Your task to perform on an android device: turn on priority inbox in the gmail app Image 0: 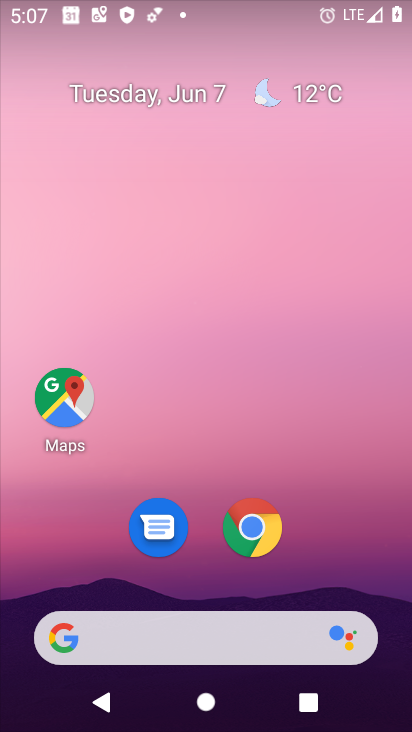
Step 0: drag from (342, 466) to (254, 69)
Your task to perform on an android device: turn on priority inbox in the gmail app Image 1: 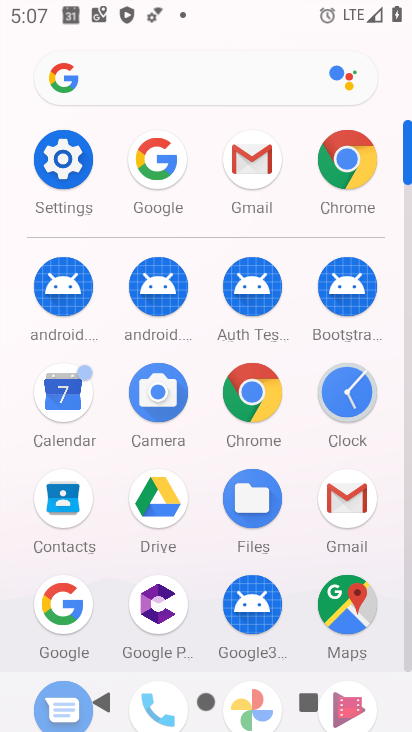
Step 1: click (251, 156)
Your task to perform on an android device: turn on priority inbox in the gmail app Image 2: 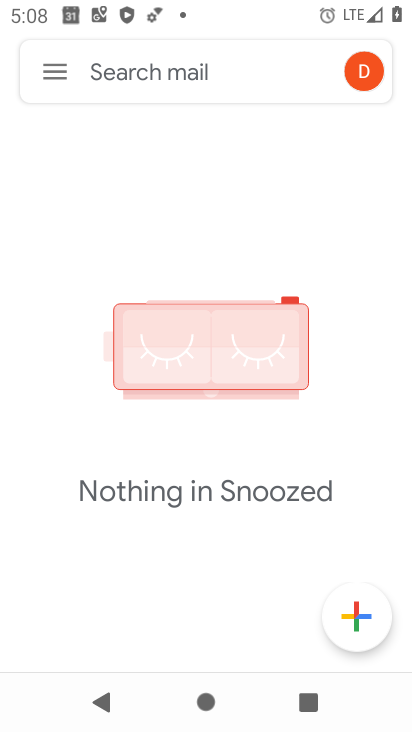
Step 2: click (60, 72)
Your task to perform on an android device: turn on priority inbox in the gmail app Image 3: 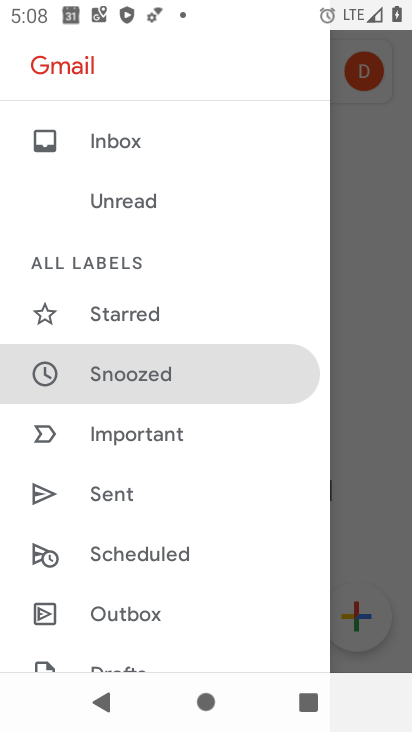
Step 3: drag from (157, 497) to (164, 368)
Your task to perform on an android device: turn on priority inbox in the gmail app Image 4: 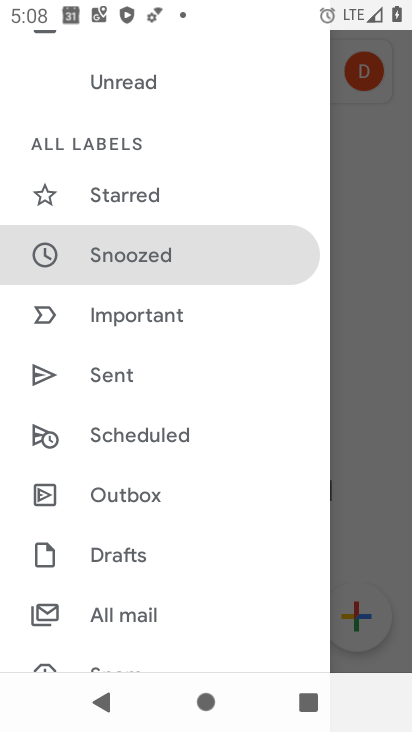
Step 4: drag from (133, 523) to (172, 402)
Your task to perform on an android device: turn on priority inbox in the gmail app Image 5: 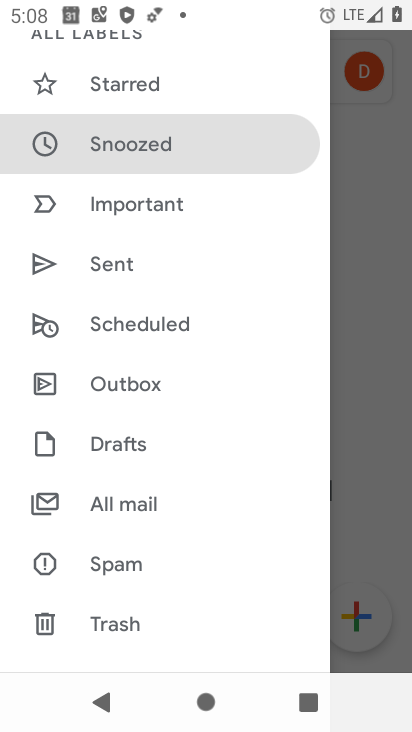
Step 5: drag from (104, 587) to (147, 463)
Your task to perform on an android device: turn on priority inbox in the gmail app Image 6: 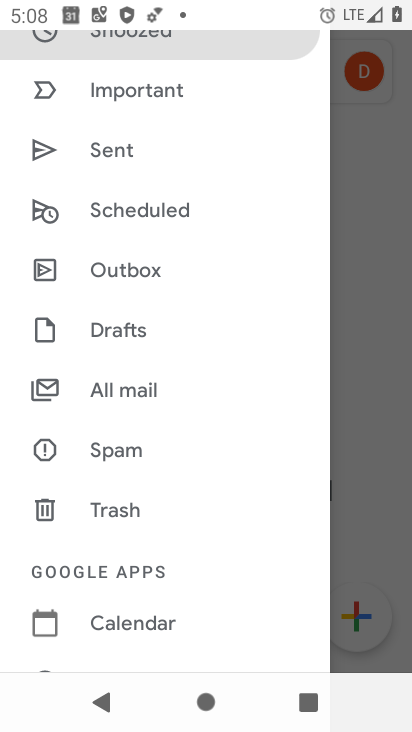
Step 6: drag from (104, 596) to (121, 448)
Your task to perform on an android device: turn on priority inbox in the gmail app Image 7: 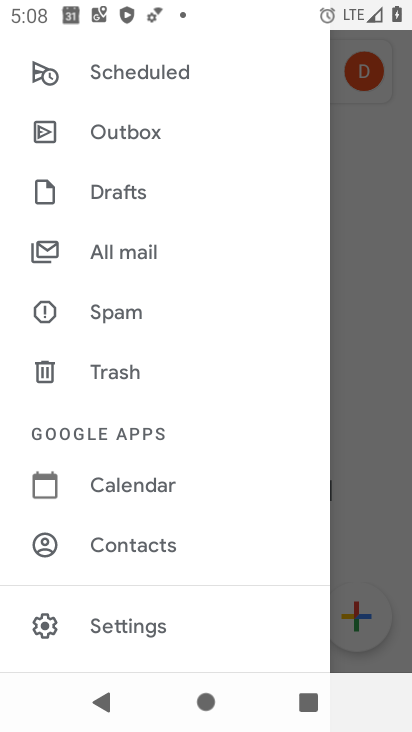
Step 7: drag from (123, 610) to (155, 510)
Your task to perform on an android device: turn on priority inbox in the gmail app Image 8: 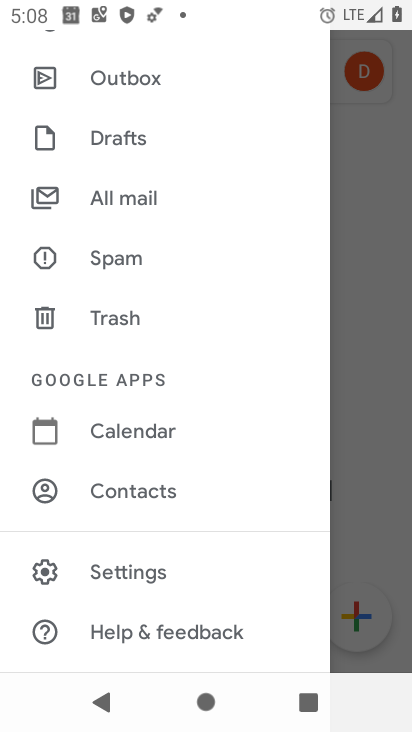
Step 8: click (147, 569)
Your task to perform on an android device: turn on priority inbox in the gmail app Image 9: 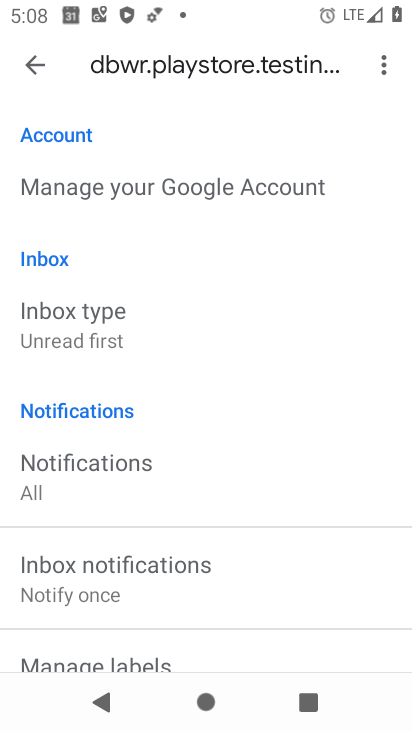
Step 9: click (97, 340)
Your task to perform on an android device: turn on priority inbox in the gmail app Image 10: 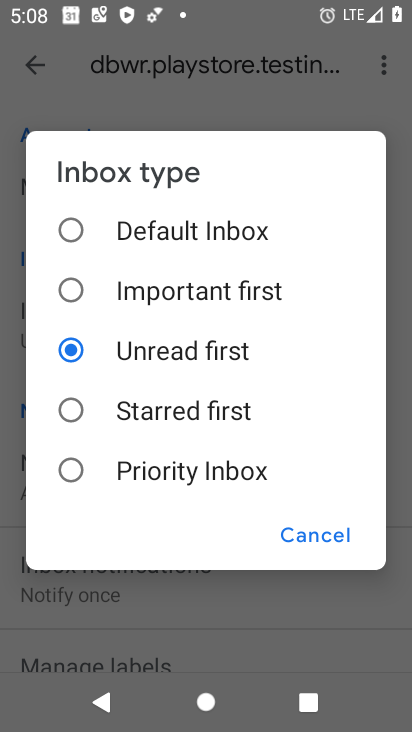
Step 10: click (72, 469)
Your task to perform on an android device: turn on priority inbox in the gmail app Image 11: 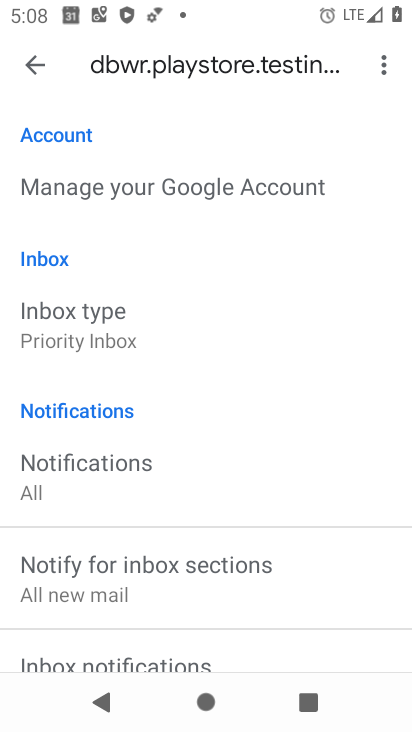
Step 11: task complete